Your task to perform on an android device: see tabs open on other devices in the chrome app Image 0: 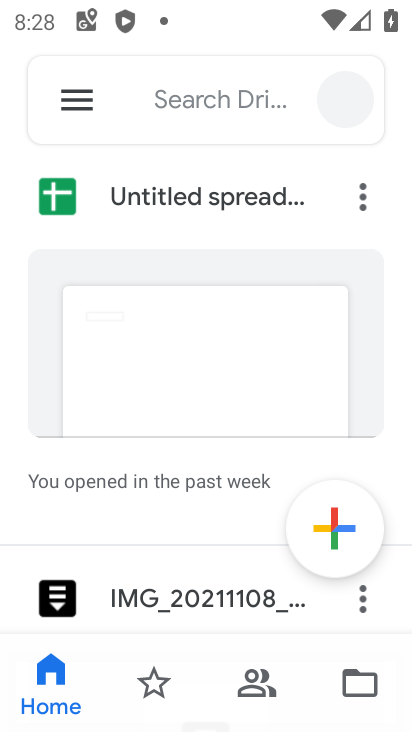
Step 0: press home button
Your task to perform on an android device: see tabs open on other devices in the chrome app Image 1: 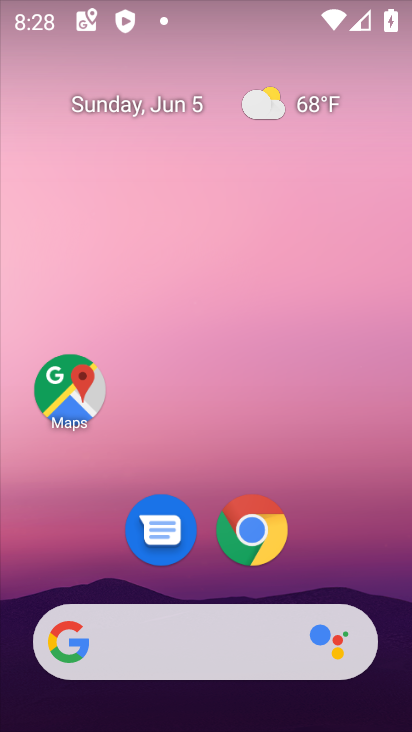
Step 1: click (256, 525)
Your task to perform on an android device: see tabs open on other devices in the chrome app Image 2: 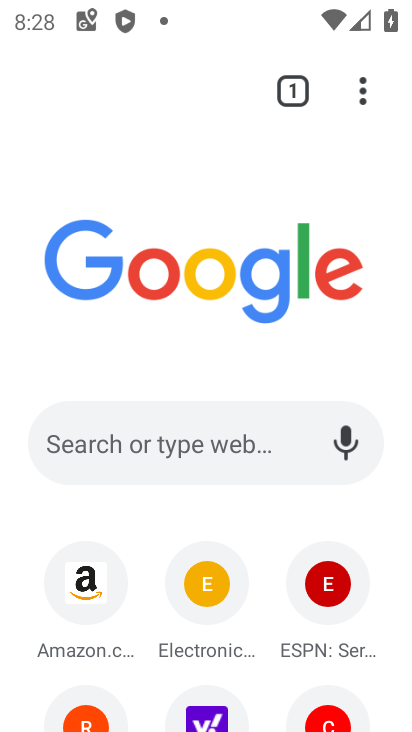
Step 2: click (362, 106)
Your task to perform on an android device: see tabs open on other devices in the chrome app Image 3: 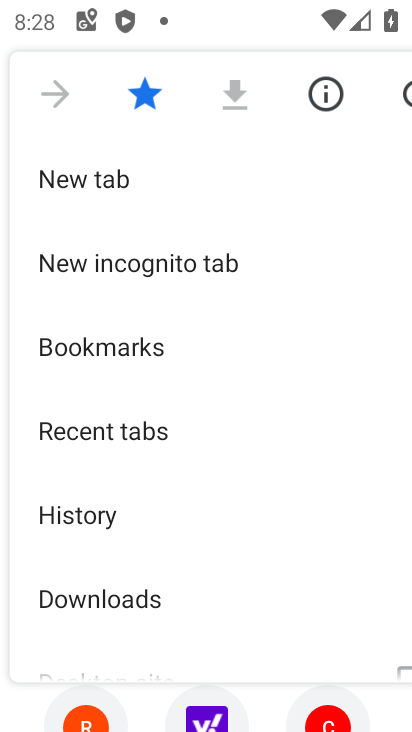
Step 3: click (109, 442)
Your task to perform on an android device: see tabs open on other devices in the chrome app Image 4: 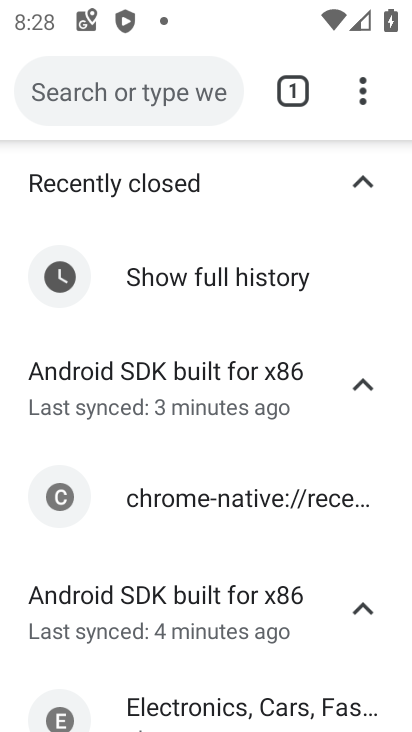
Step 4: task complete